Your task to perform on an android device: change the clock style Image 0: 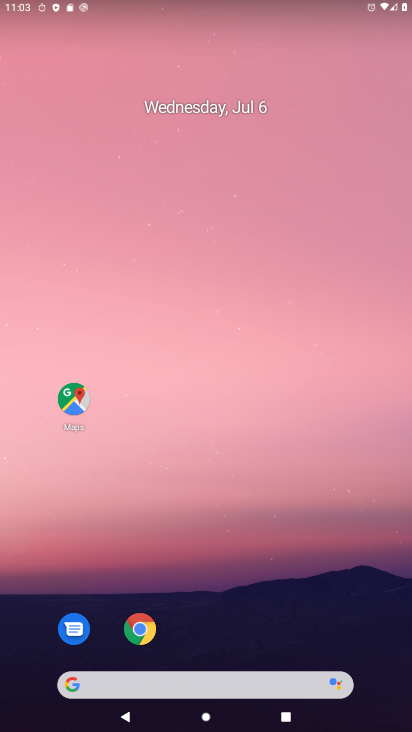
Step 0: drag from (200, 652) to (217, 148)
Your task to perform on an android device: change the clock style Image 1: 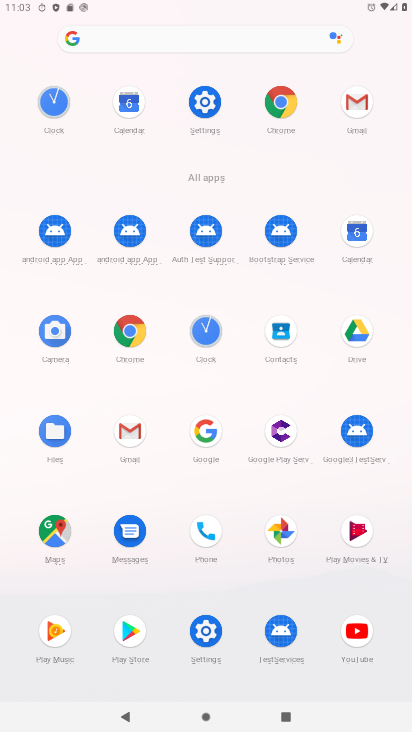
Step 1: click (204, 331)
Your task to perform on an android device: change the clock style Image 2: 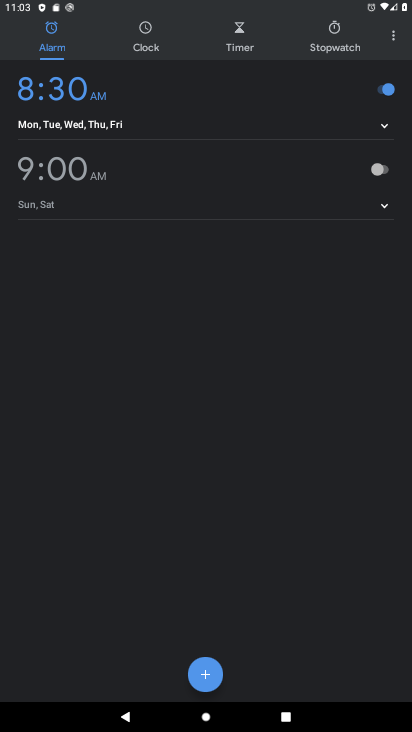
Step 2: click (387, 34)
Your task to perform on an android device: change the clock style Image 3: 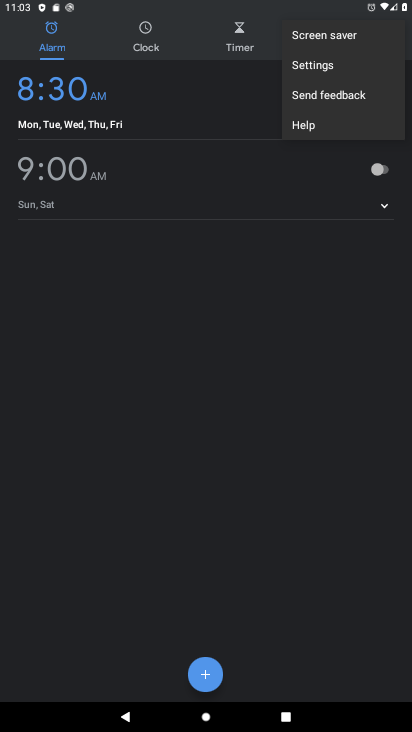
Step 3: click (326, 67)
Your task to perform on an android device: change the clock style Image 4: 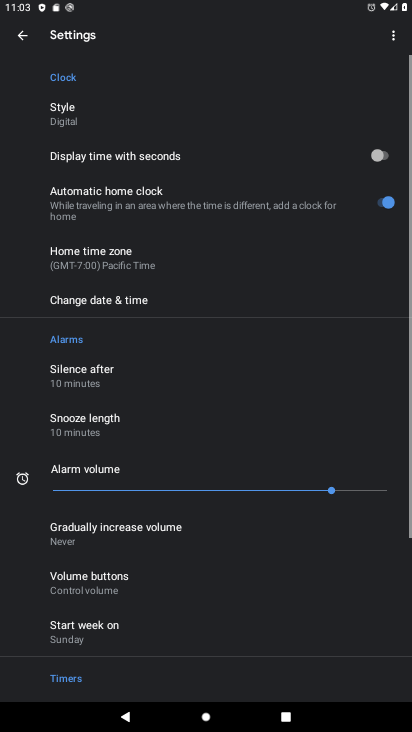
Step 4: click (70, 111)
Your task to perform on an android device: change the clock style Image 5: 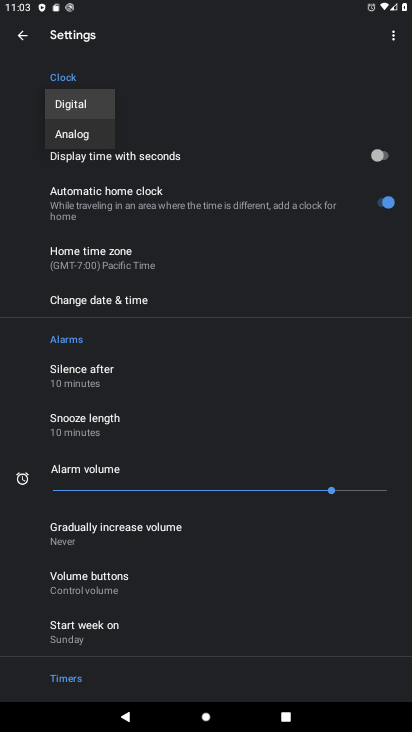
Step 5: click (86, 139)
Your task to perform on an android device: change the clock style Image 6: 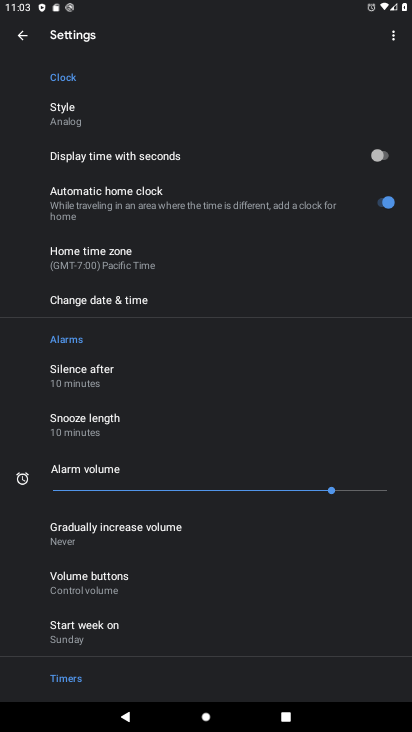
Step 6: task complete